Your task to perform on an android device: Open Maps and search for coffee Image 0: 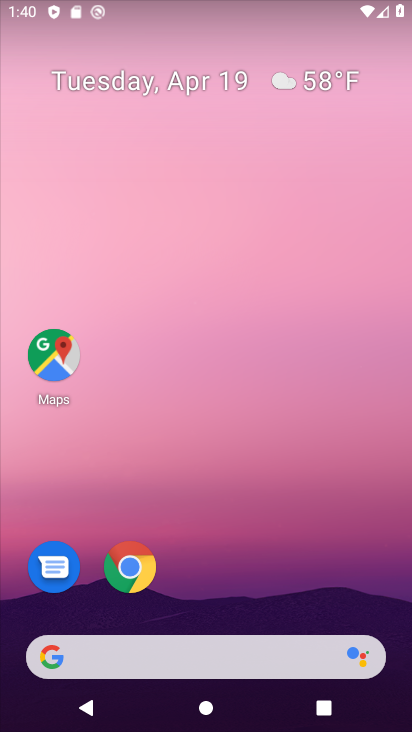
Step 0: click (51, 354)
Your task to perform on an android device: Open Maps and search for coffee Image 1: 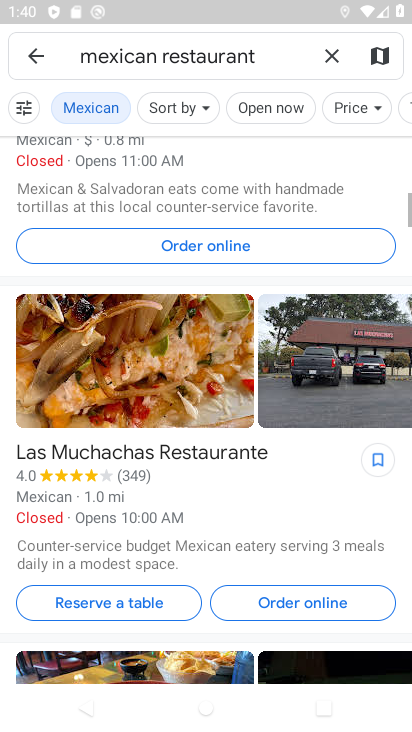
Step 1: click (325, 51)
Your task to perform on an android device: Open Maps and search for coffee Image 2: 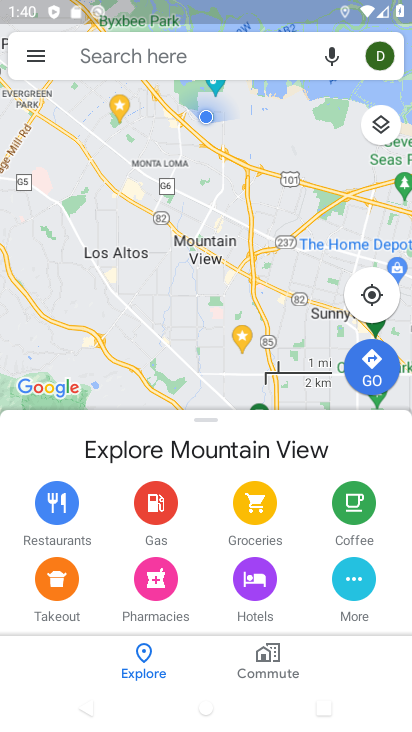
Step 2: click (109, 56)
Your task to perform on an android device: Open Maps and search for coffee Image 3: 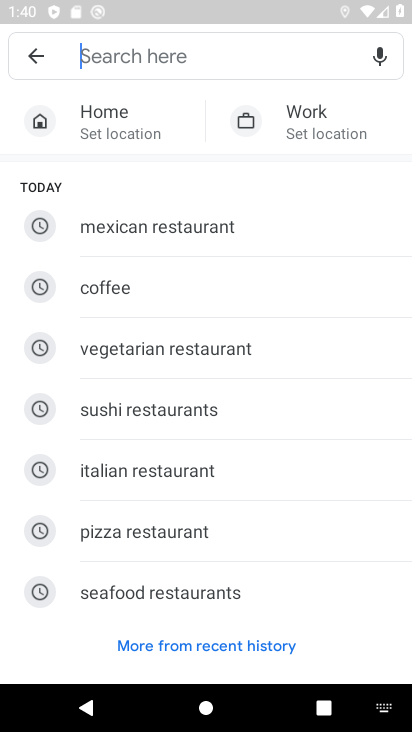
Step 3: type "coffee"
Your task to perform on an android device: Open Maps and search for coffee Image 4: 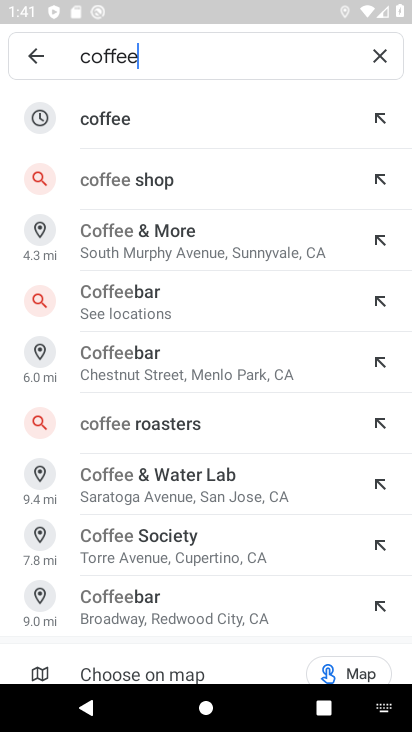
Step 4: click (115, 113)
Your task to perform on an android device: Open Maps and search for coffee Image 5: 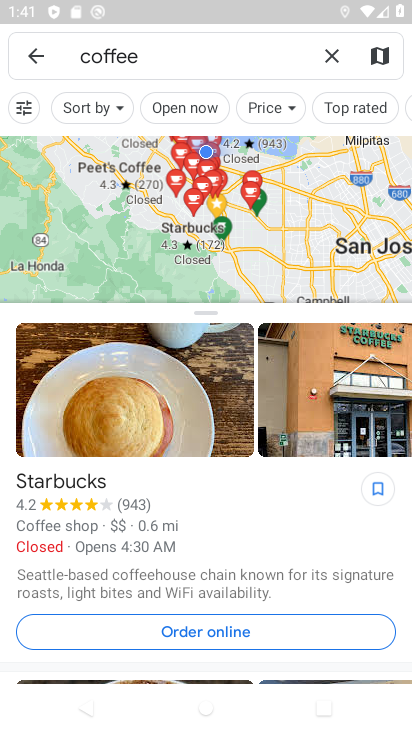
Step 5: task complete